Your task to perform on an android device: Show me popular videos on Youtube Image 0: 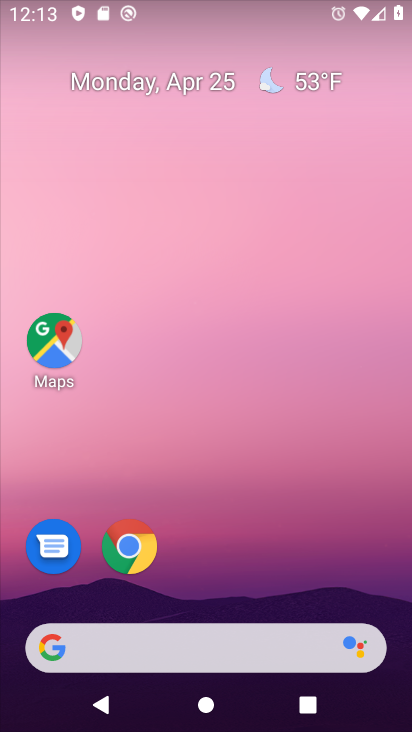
Step 0: drag from (196, 603) to (225, 183)
Your task to perform on an android device: Show me popular videos on Youtube Image 1: 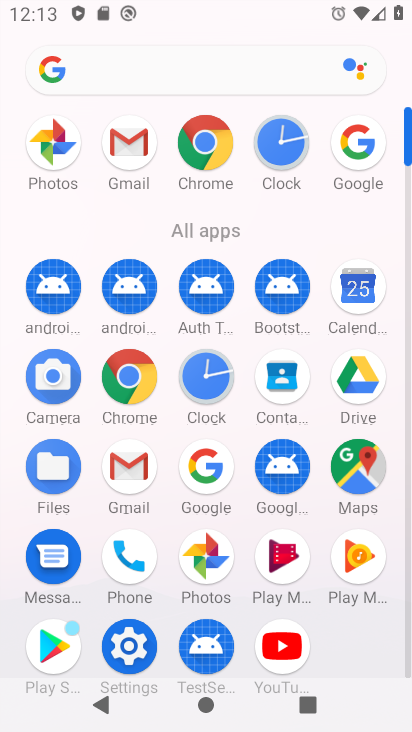
Step 1: click (299, 643)
Your task to perform on an android device: Show me popular videos on Youtube Image 2: 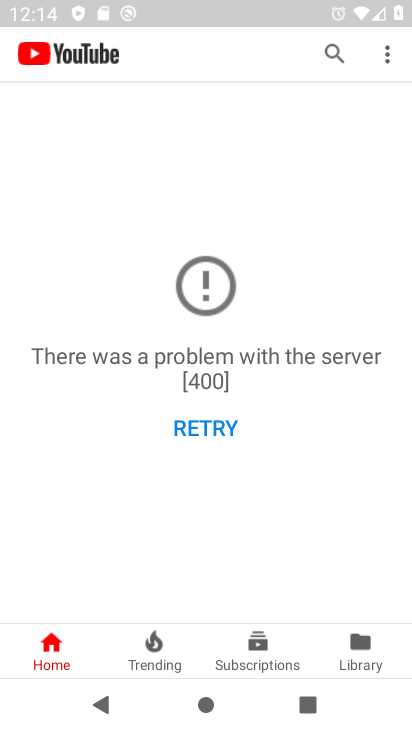
Step 2: click (331, 53)
Your task to perform on an android device: Show me popular videos on Youtube Image 3: 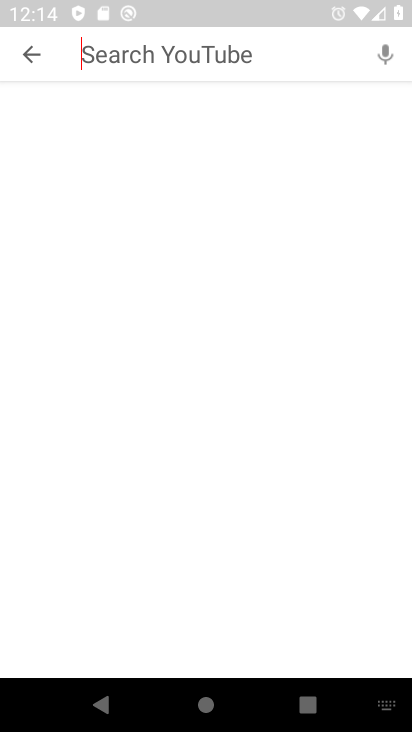
Step 3: type "popular videos"
Your task to perform on an android device: Show me popular videos on Youtube Image 4: 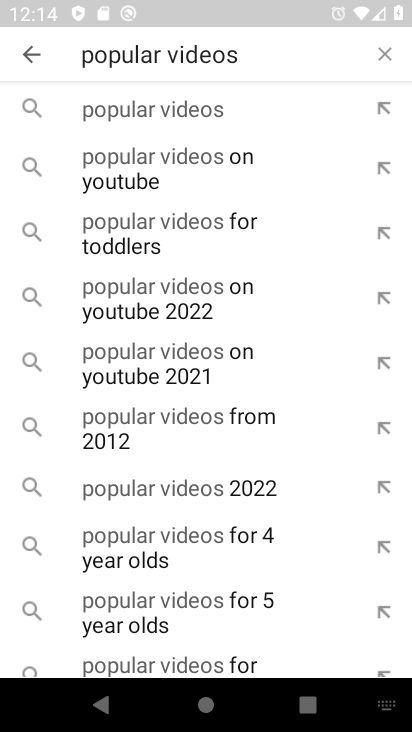
Step 4: click (190, 113)
Your task to perform on an android device: Show me popular videos on Youtube Image 5: 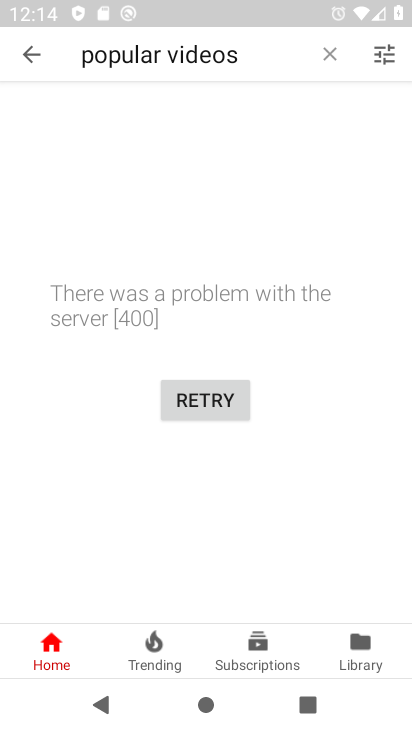
Step 5: task complete